Your task to perform on an android device: all mails in gmail Image 0: 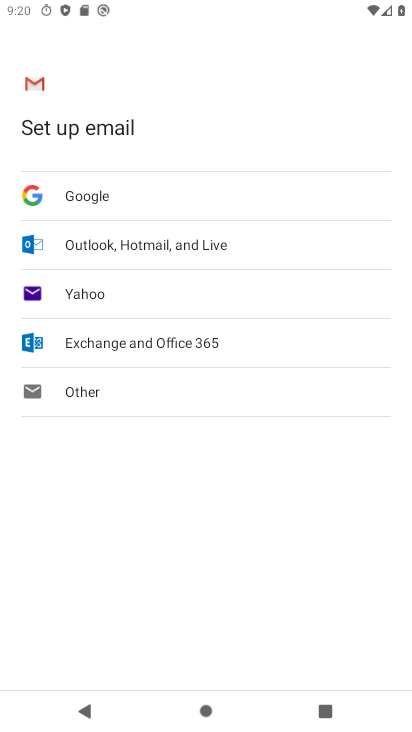
Step 0: press home button
Your task to perform on an android device: all mails in gmail Image 1: 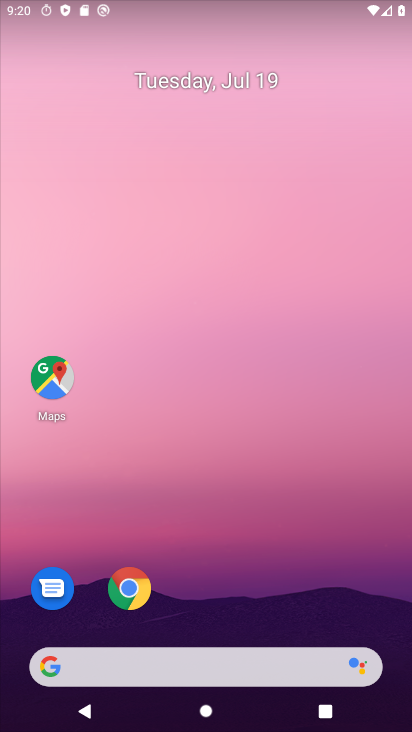
Step 1: drag from (218, 621) to (252, 11)
Your task to perform on an android device: all mails in gmail Image 2: 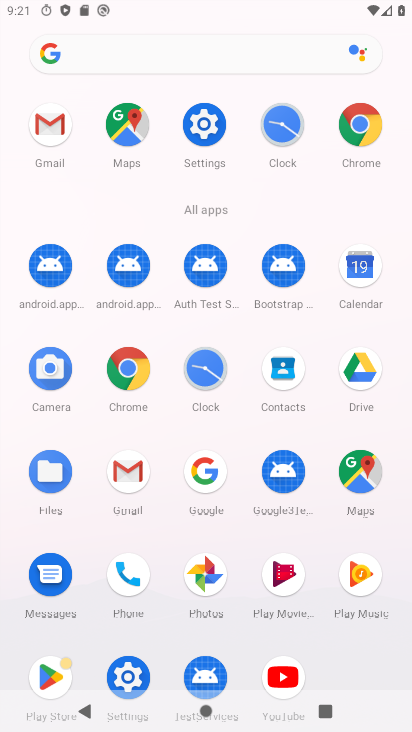
Step 2: click (127, 462)
Your task to perform on an android device: all mails in gmail Image 3: 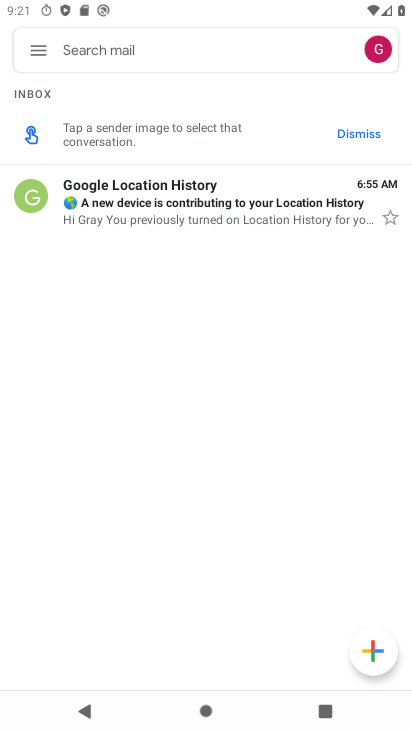
Step 3: click (34, 43)
Your task to perform on an android device: all mails in gmail Image 4: 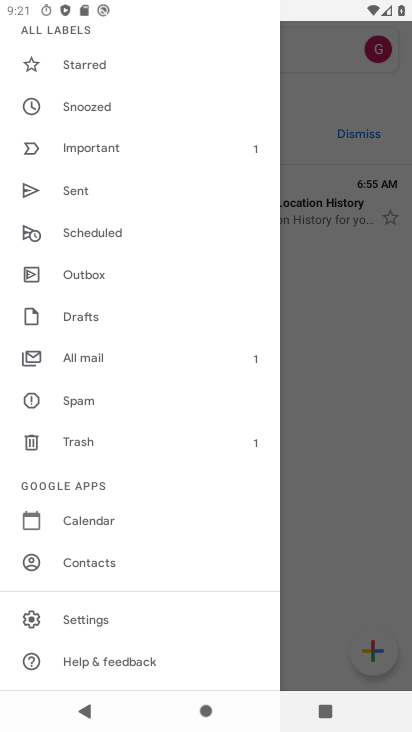
Step 4: click (89, 356)
Your task to perform on an android device: all mails in gmail Image 5: 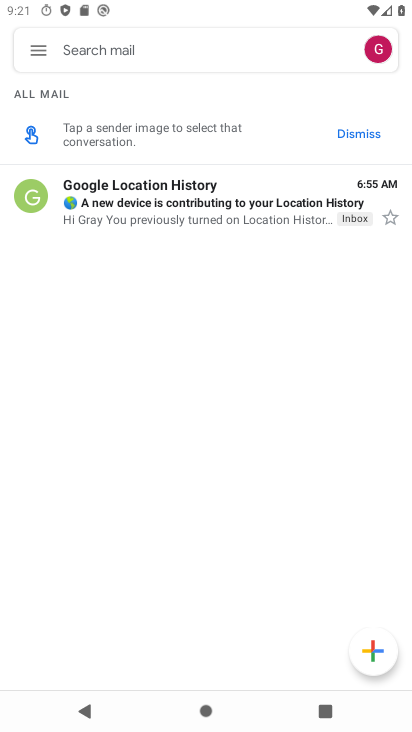
Step 5: task complete